Your task to perform on an android device: turn off airplane mode Image 0: 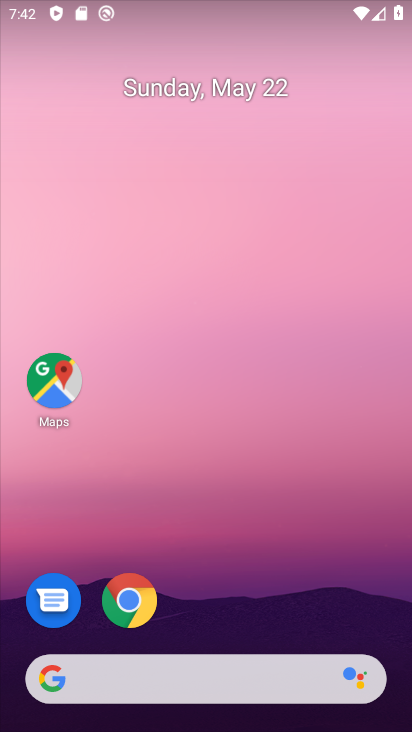
Step 0: drag from (238, 589) to (264, 203)
Your task to perform on an android device: turn off airplane mode Image 1: 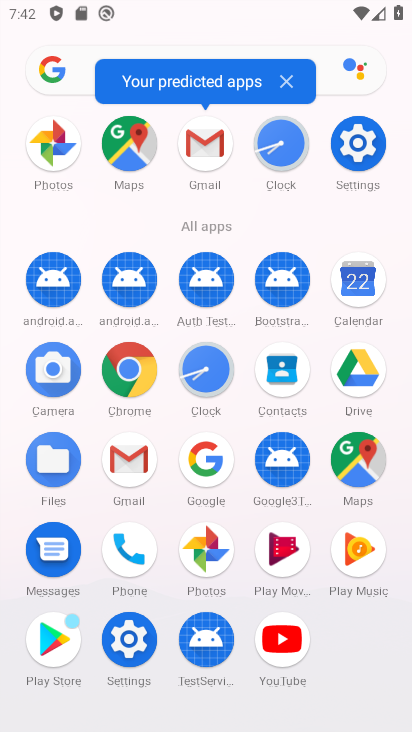
Step 1: click (360, 141)
Your task to perform on an android device: turn off airplane mode Image 2: 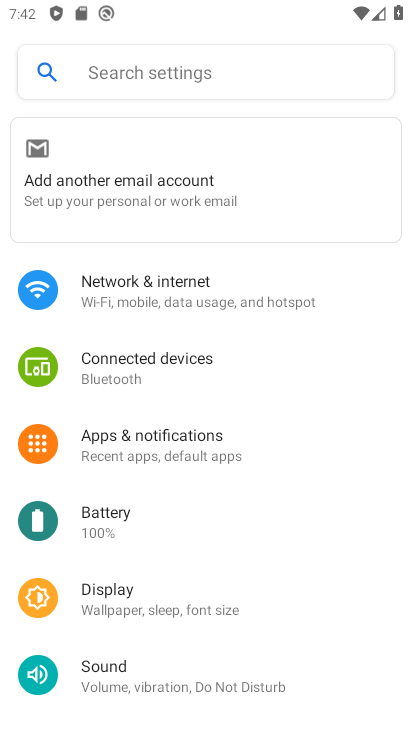
Step 2: click (193, 283)
Your task to perform on an android device: turn off airplane mode Image 3: 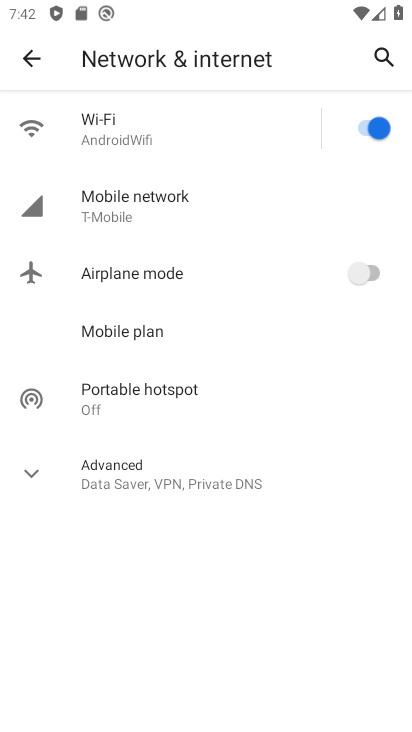
Step 3: task complete